Your task to perform on an android device: find which apps use the phone's location Image 0: 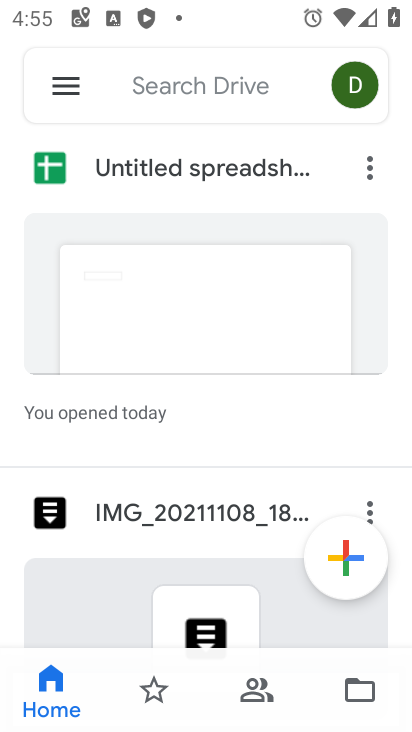
Step 0: press home button
Your task to perform on an android device: find which apps use the phone's location Image 1: 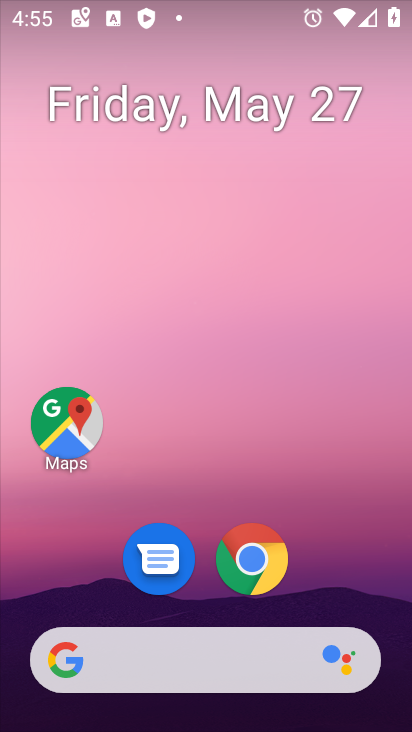
Step 1: drag from (196, 659) to (296, 30)
Your task to perform on an android device: find which apps use the phone's location Image 2: 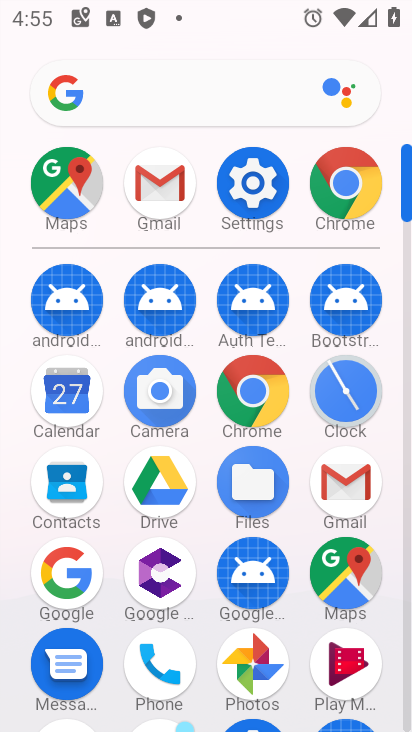
Step 2: click (241, 175)
Your task to perform on an android device: find which apps use the phone's location Image 3: 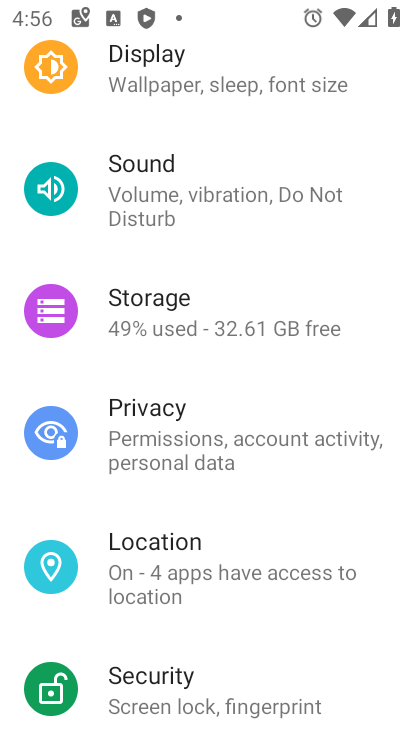
Step 3: click (263, 577)
Your task to perform on an android device: find which apps use the phone's location Image 4: 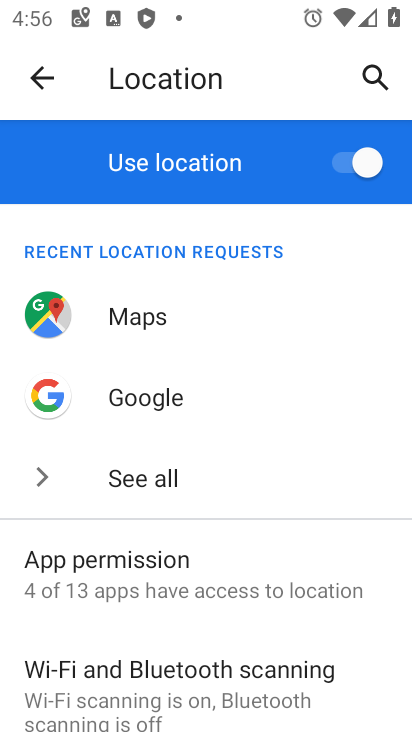
Step 4: task complete